Your task to perform on an android device: Show me popular videos on Youtube Image 0: 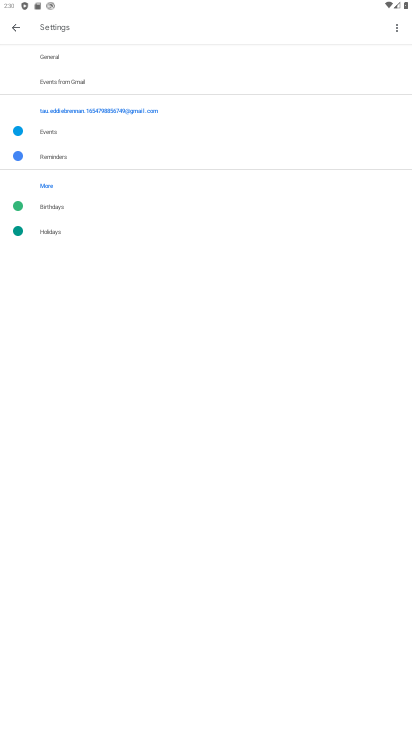
Step 0: drag from (283, 711) to (162, 61)
Your task to perform on an android device: Show me popular videos on Youtube Image 1: 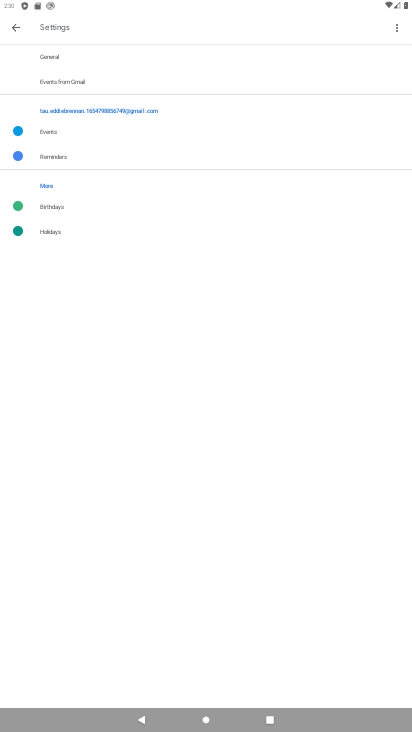
Step 1: press back button
Your task to perform on an android device: Show me popular videos on Youtube Image 2: 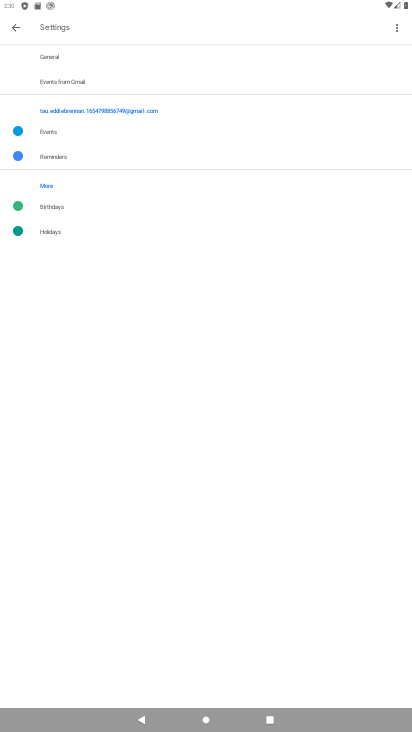
Step 2: press back button
Your task to perform on an android device: Show me popular videos on Youtube Image 3: 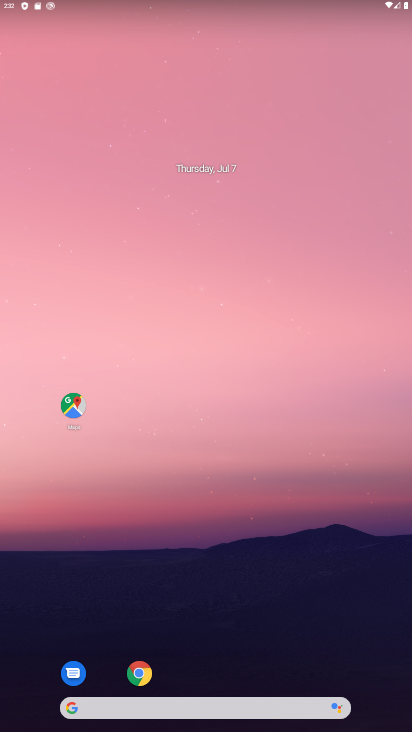
Step 3: drag from (223, 104) to (190, 3)
Your task to perform on an android device: Show me popular videos on Youtube Image 4: 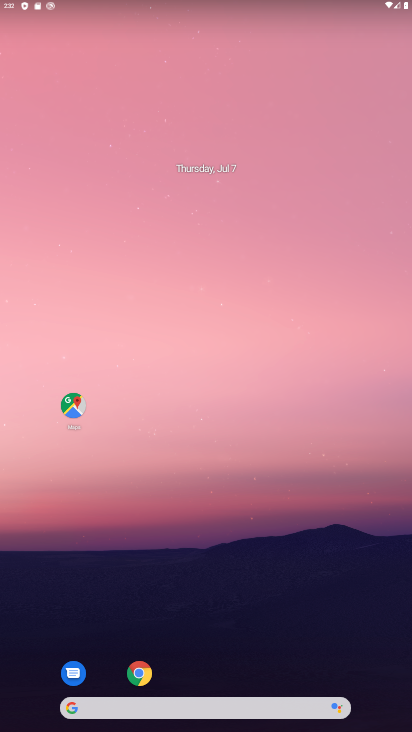
Step 4: drag from (255, 447) to (211, 47)
Your task to perform on an android device: Show me popular videos on Youtube Image 5: 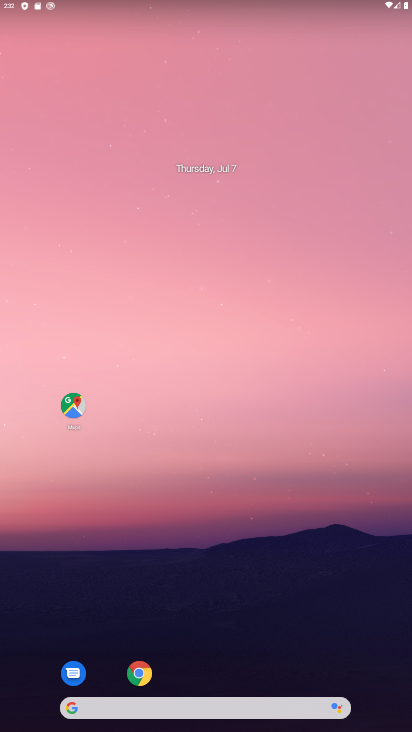
Step 5: drag from (274, 612) to (109, 7)
Your task to perform on an android device: Show me popular videos on Youtube Image 6: 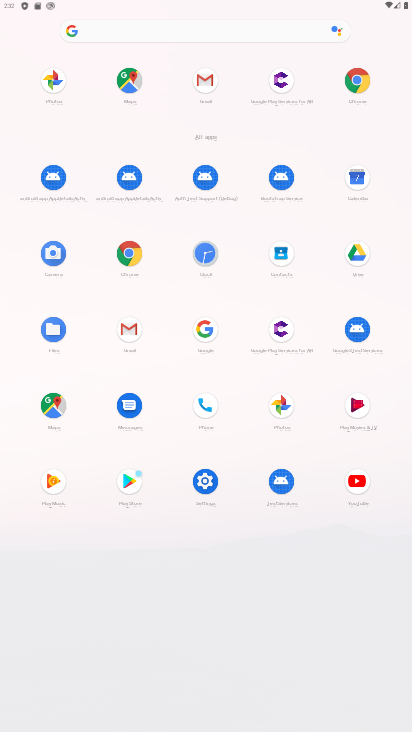
Step 6: click (348, 477)
Your task to perform on an android device: Show me popular videos on Youtube Image 7: 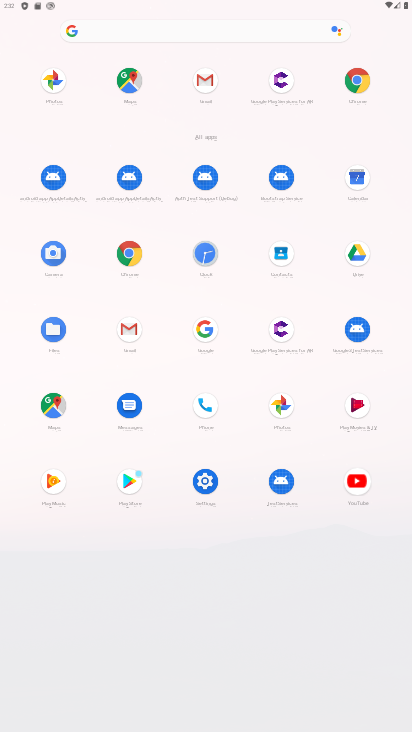
Step 7: click (361, 486)
Your task to perform on an android device: Show me popular videos on Youtube Image 8: 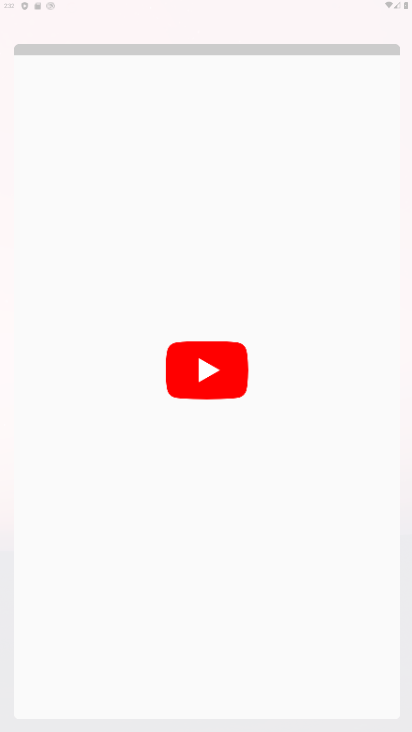
Step 8: click (365, 487)
Your task to perform on an android device: Show me popular videos on Youtube Image 9: 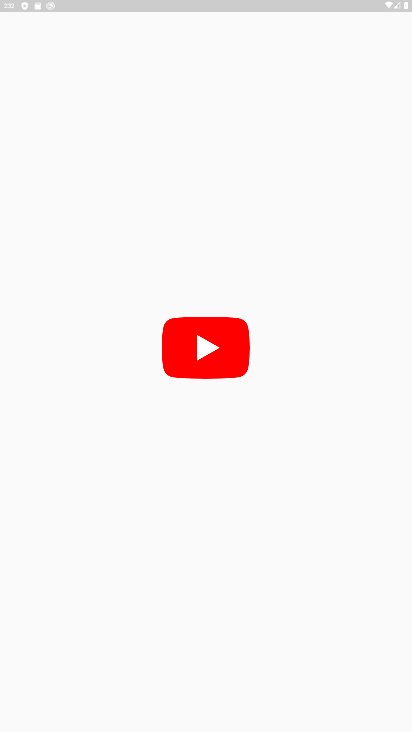
Step 9: click (365, 487)
Your task to perform on an android device: Show me popular videos on Youtube Image 10: 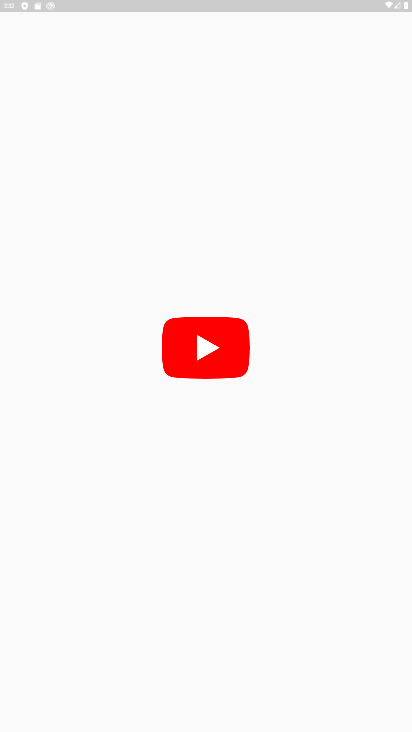
Step 10: click (209, 354)
Your task to perform on an android device: Show me popular videos on Youtube Image 11: 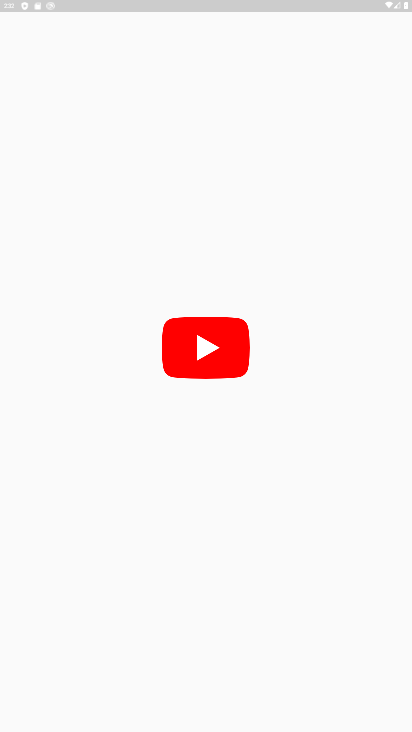
Step 11: click (210, 352)
Your task to perform on an android device: Show me popular videos on Youtube Image 12: 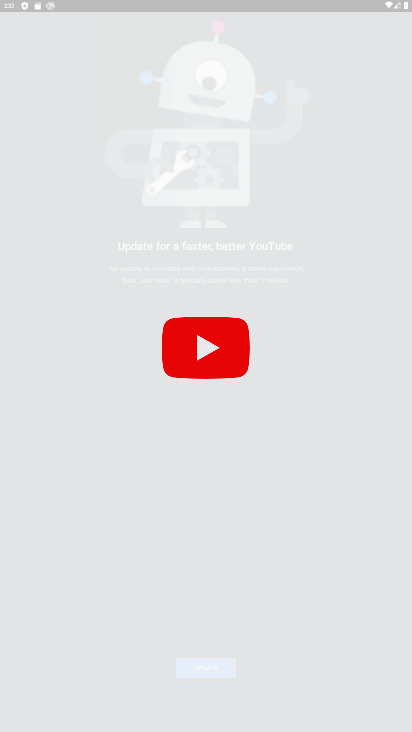
Step 12: click (211, 352)
Your task to perform on an android device: Show me popular videos on Youtube Image 13: 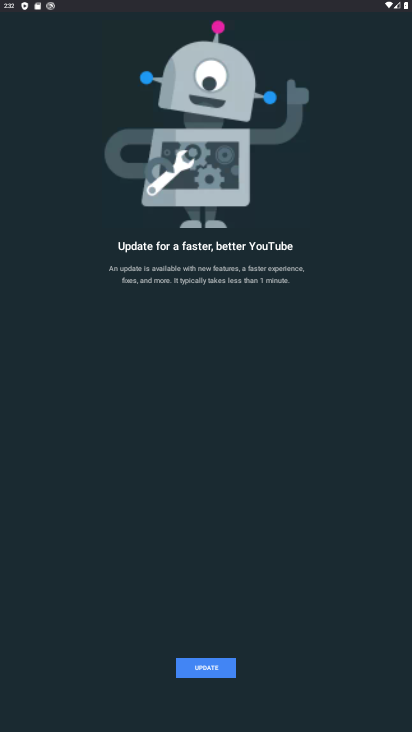
Step 13: click (211, 352)
Your task to perform on an android device: Show me popular videos on Youtube Image 14: 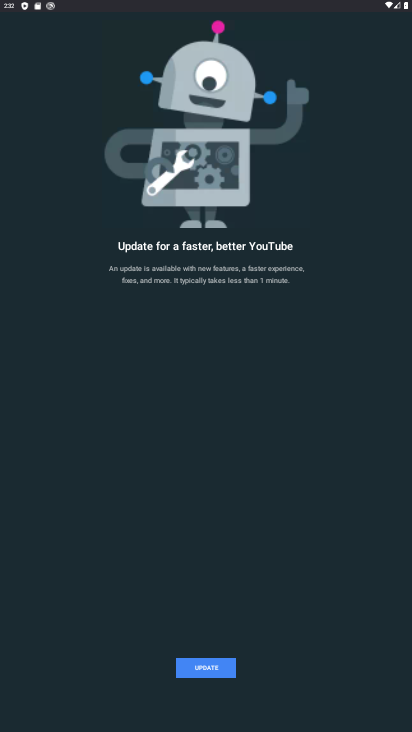
Step 14: click (208, 665)
Your task to perform on an android device: Show me popular videos on Youtube Image 15: 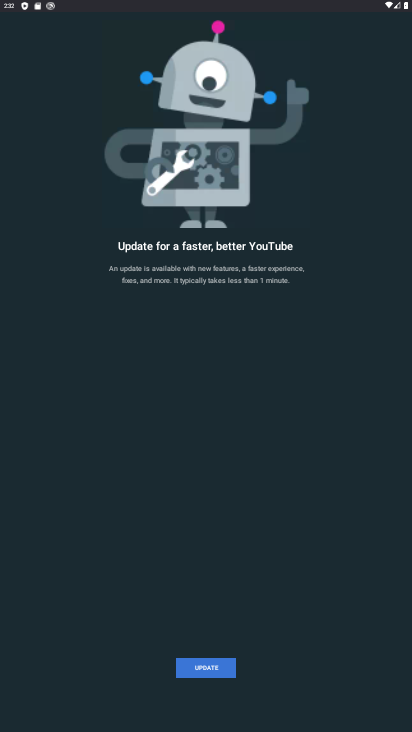
Step 15: click (211, 666)
Your task to perform on an android device: Show me popular videos on Youtube Image 16: 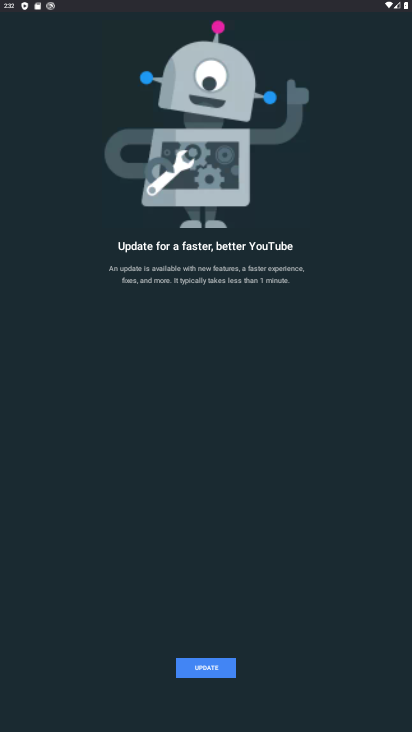
Step 16: click (211, 666)
Your task to perform on an android device: Show me popular videos on Youtube Image 17: 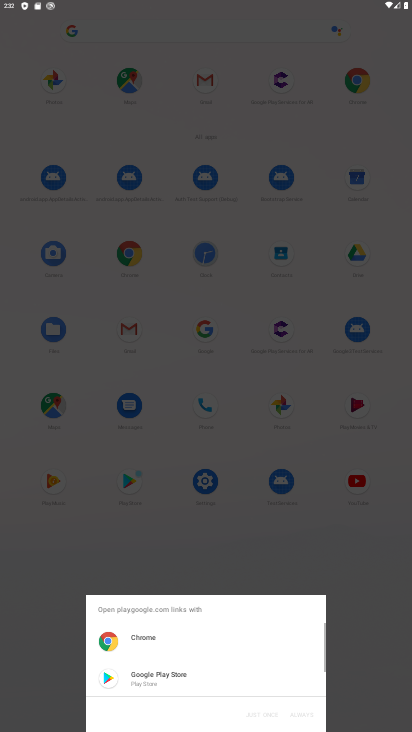
Step 17: click (214, 665)
Your task to perform on an android device: Show me popular videos on Youtube Image 18: 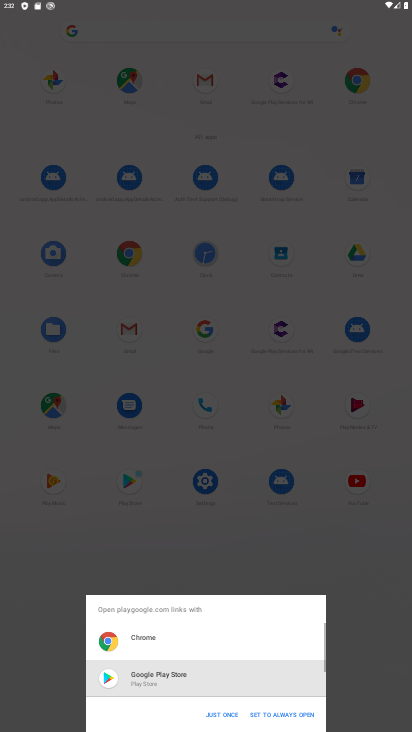
Step 18: click (133, 632)
Your task to perform on an android device: Show me popular videos on Youtube Image 19: 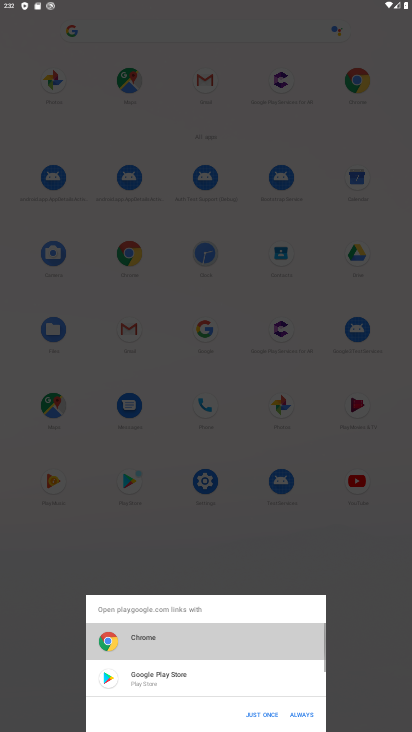
Step 19: click (134, 632)
Your task to perform on an android device: Show me popular videos on Youtube Image 20: 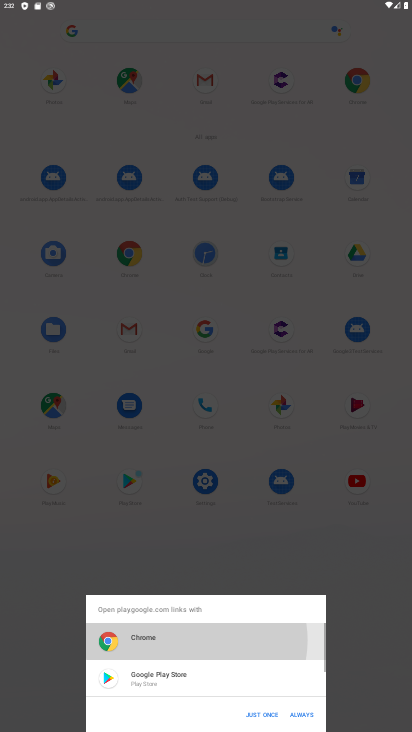
Step 20: click (134, 632)
Your task to perform on an android device: Show me popular videos on Youtube Image 21: 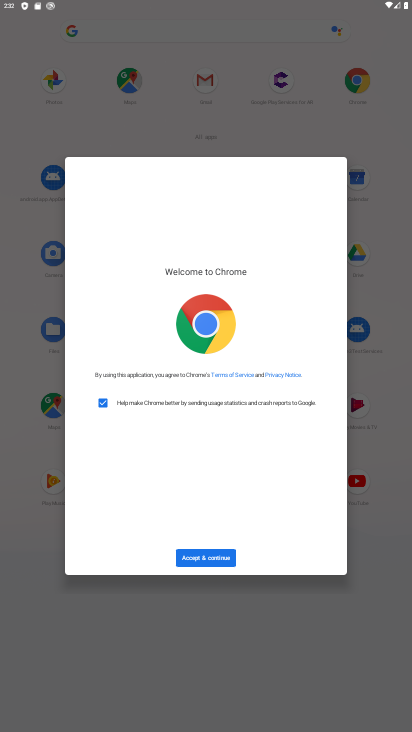
Step 21: click (214, 553)
Your task to perform on an android device: Show me popular videos on Youtube Image 22: 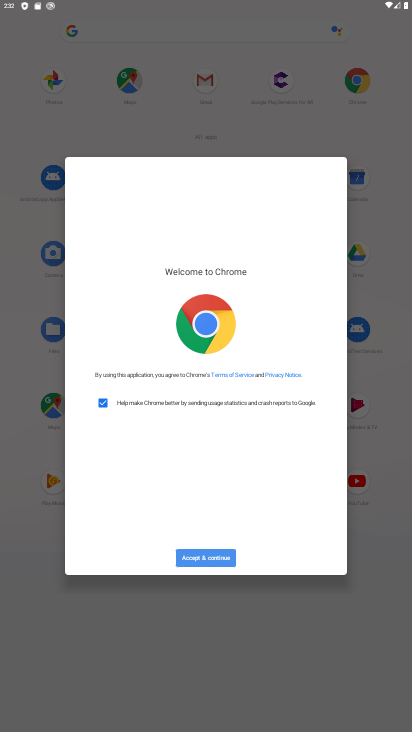
Step 22: click (215, 554)
Your task to perform on an android device: Show me popular videos on Youtube Image 23: 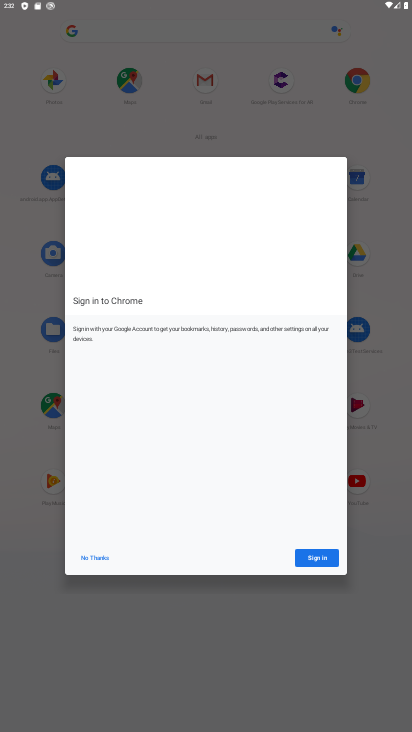
Step 23: click (216, 555)
Your task to perform on an android device: Show me popular videos on Youtube Image 24: 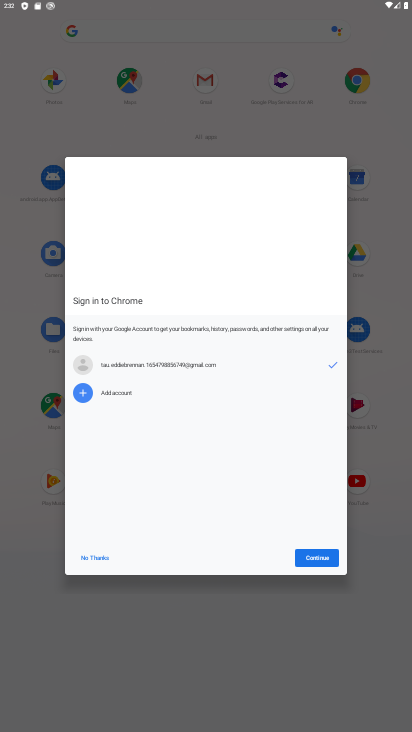
Step 24: click (216, 556)
Your task to perform on an android device: Show me popular videos on Youtube Image 25: 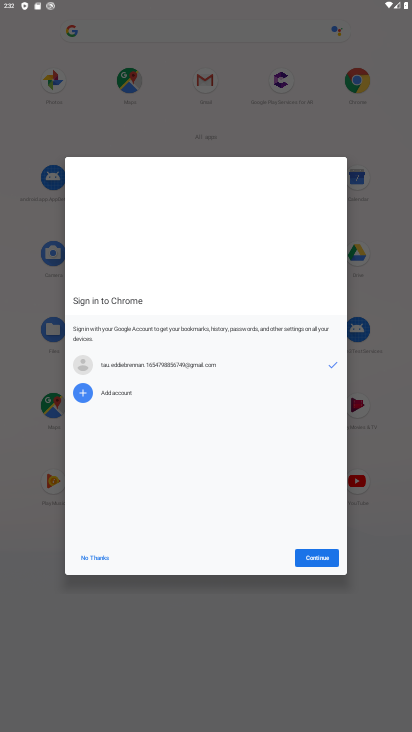
Step 25: click (313, 553)
Your task to perform on an android device: Show me popular videos on Youtube Image 26: 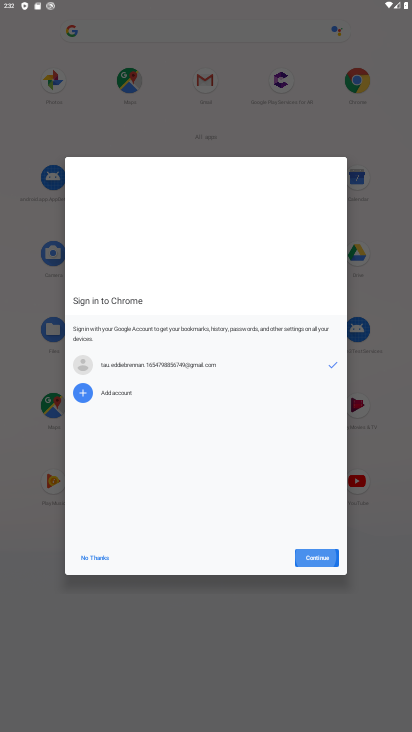
Step 26: click (324, 560)
Your task to perform on an android device: Show me popular videos on Youtube Image 27: 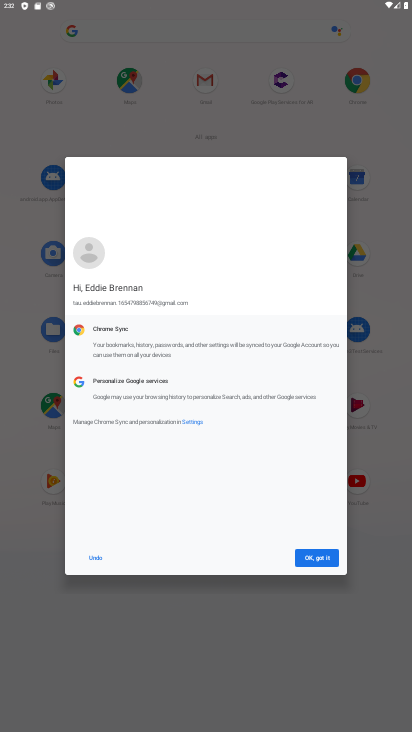
Step 27: click (326, 563)
Your task to perform on an android device: Show me popular videos on Youtube Image 28: 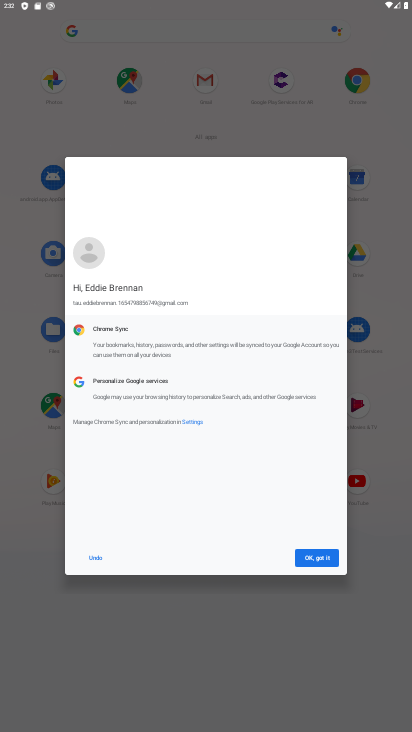
Step 28: click (326, 563)
Your task to perform on an android device: Show me popular videos on Youtube Image 29: 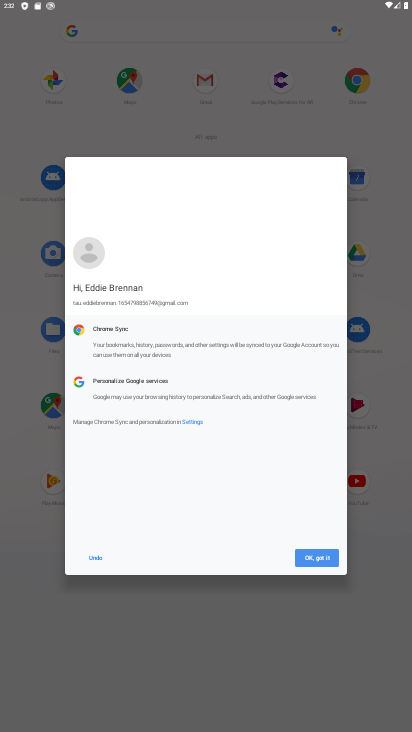
Step 29: click (326, 563)
Your task to perform on an android device: Show me popular videos on Youtube Image 30: 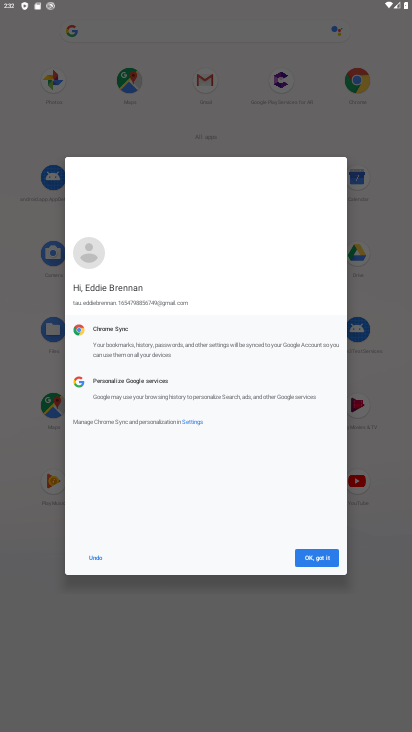
Step 30: click (329, 562)
Your task to perform on an android device: Show me popular videos on Youtube Image 31: 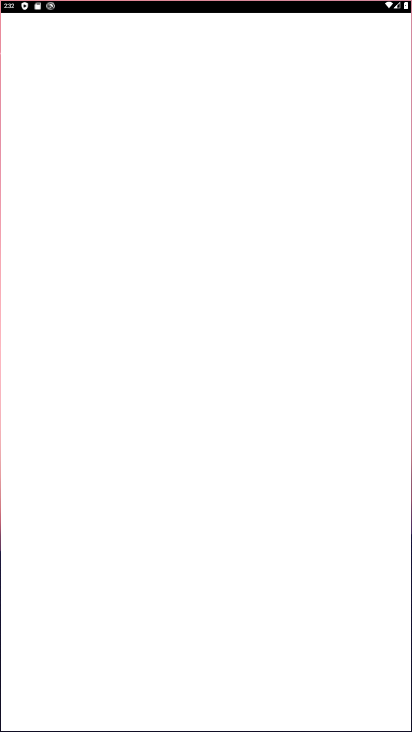
Step 31: click (334, 557)
Your task to perform on an android device: Show me popular videos on Youtube Image 32: 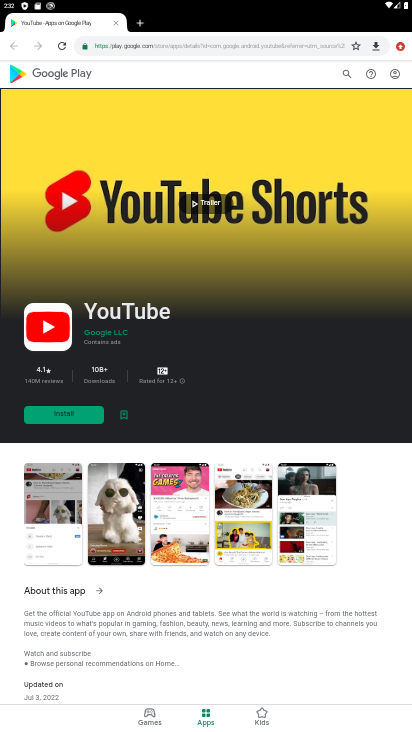
Step 32: press back button
Your task to perform on an android device: Show me popular videos on Youtube Image 33: 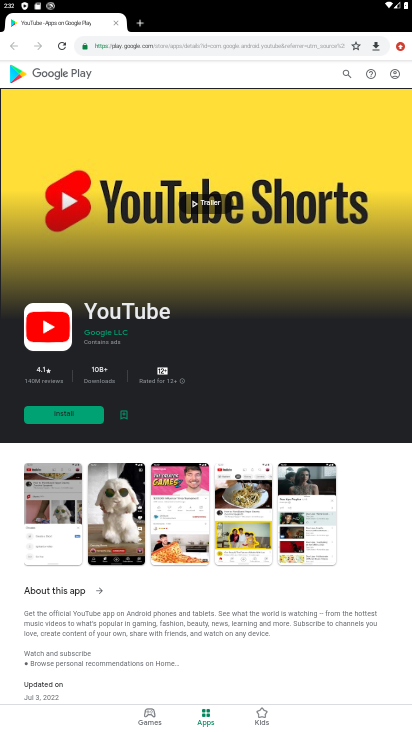
Step 33: press back button
Your task to perform on an android device: Show me popular videos on Youtube Image 34: 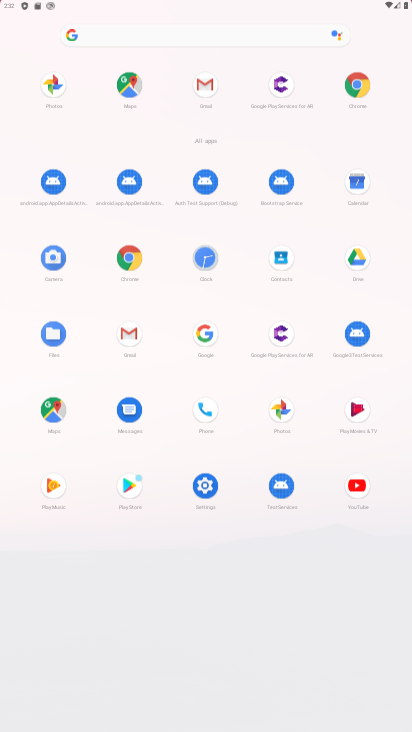
Step 34: press back button
Your task to perform on an android device: Show me popular videos on Youtube Image 35: 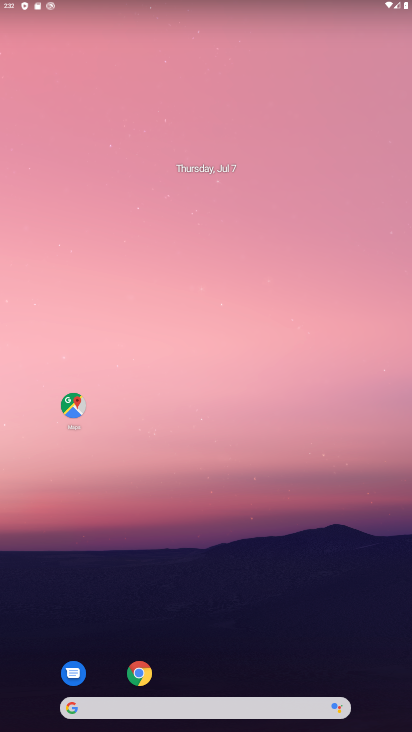
Step 35: drag from (256, 619) to (408, 10)
Your task to perform on an android device: Show me popular videos on Youtube Image 36: 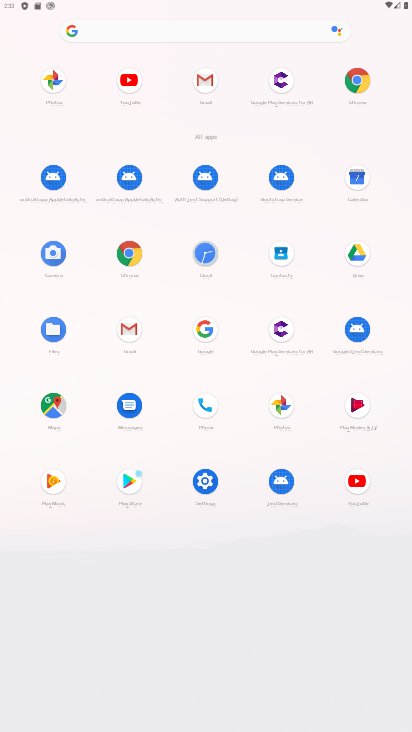
Step 36: click (357, 472)
Your task to perform on an android device: Show me popular videos on Youtube Image 37: 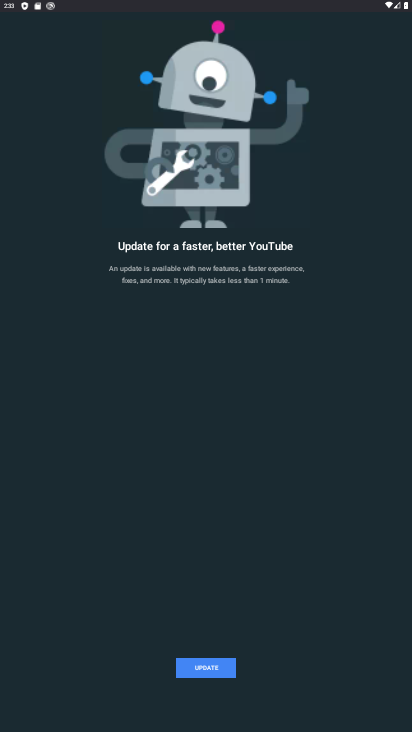
Step 37: click (360, 473)
Your task to perform on an android device: Show me popular videos on Youtube Image 38: 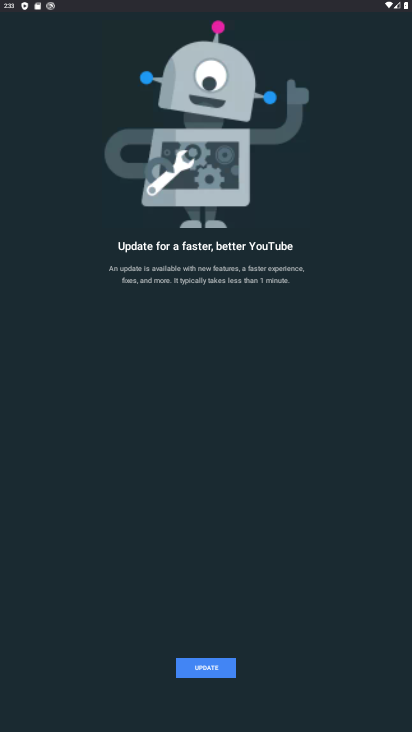
Step 38: click (203, 668)
Your task to perform on an android device: Show me popular videos on Youtube Image 39: 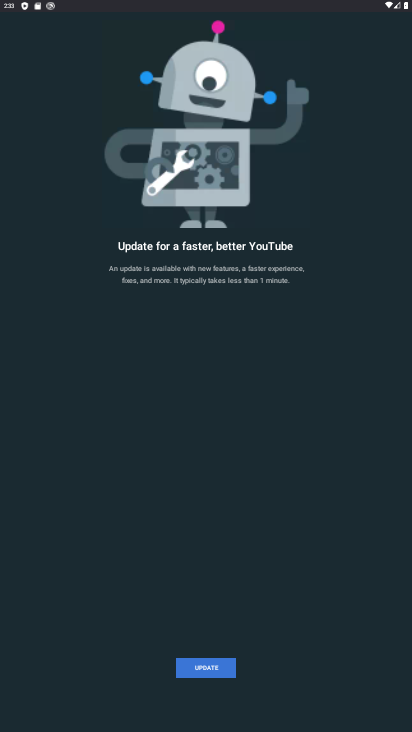
Step 39: click (203, 668)
Your task to perform on an android device: Show me popular videos on Youtube Image 40: 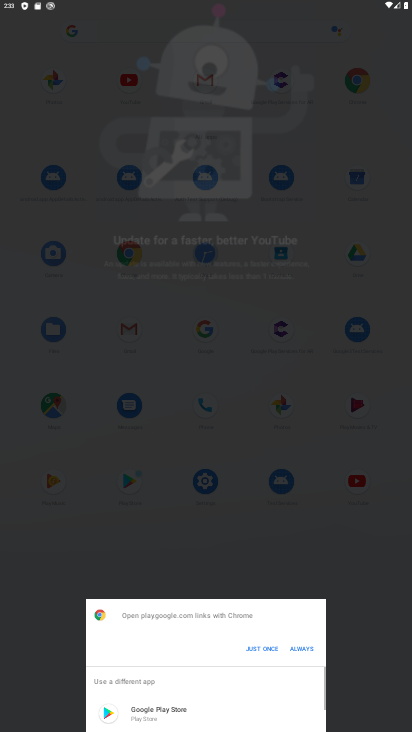
Step 40: click (208, 664)
Your task to perform on an android device: Show me popular videos on Youtube Image 41: 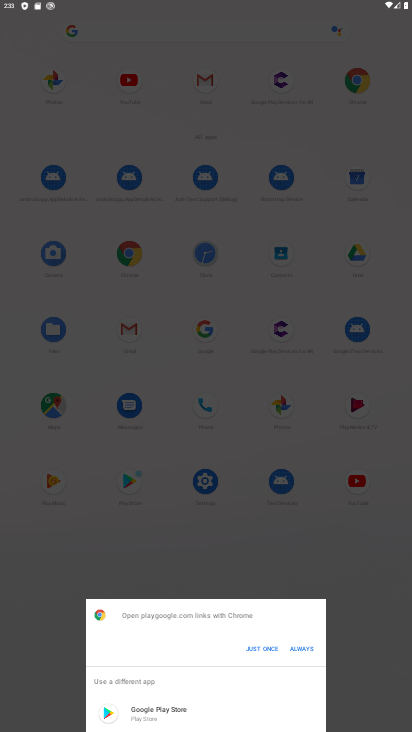
Step 41: click (267, 645)
Your task to perform on an android device: Show me popular videos on Youtube Image 42: 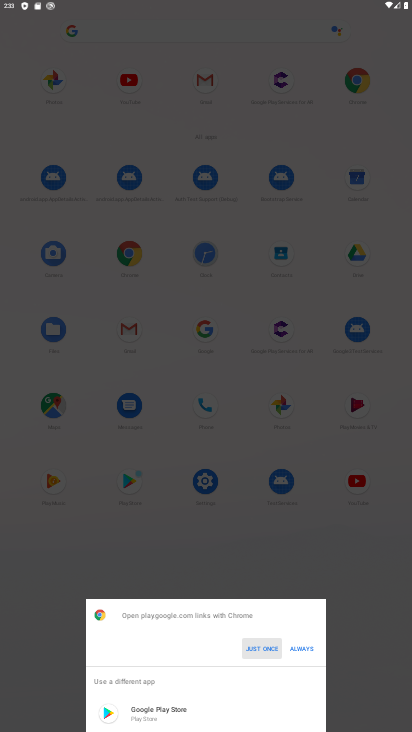
Step 42: click (267, 645)
Your task to perform on an android device: Show me popular videos on Youtube Image 43: 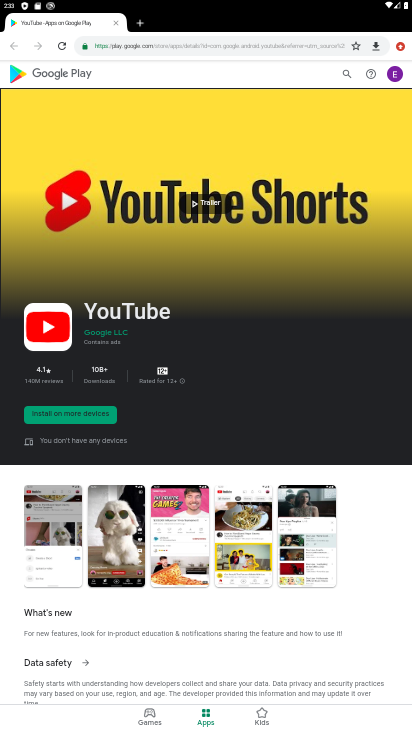
Step 43: task complete